Your task to perform on an android device: Go to Android settings Image 0: 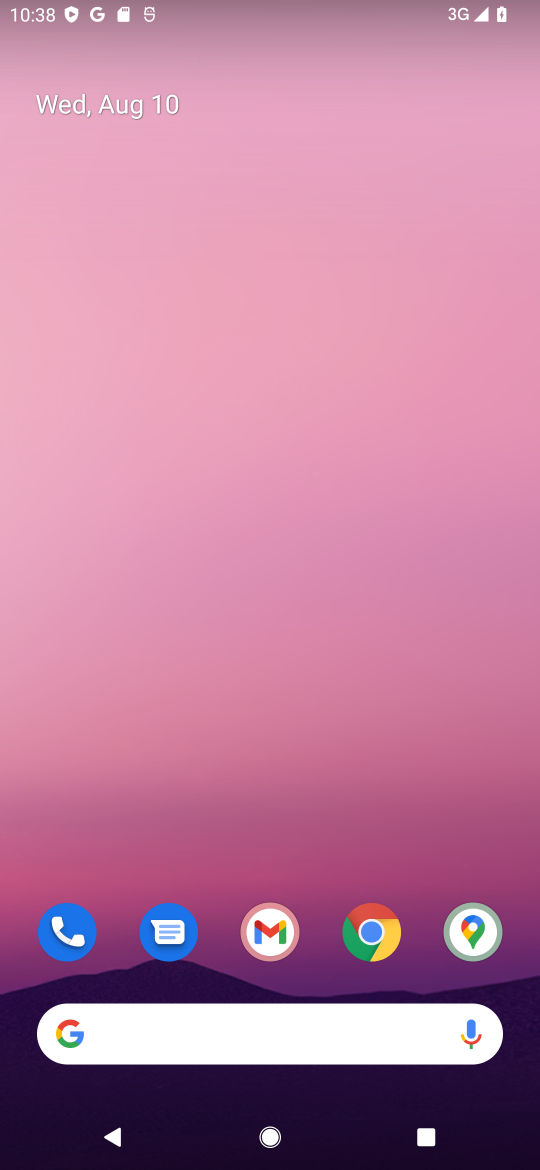
Step 0: press home button
Your task to perform on an android device: Go to Android settings Image 1: 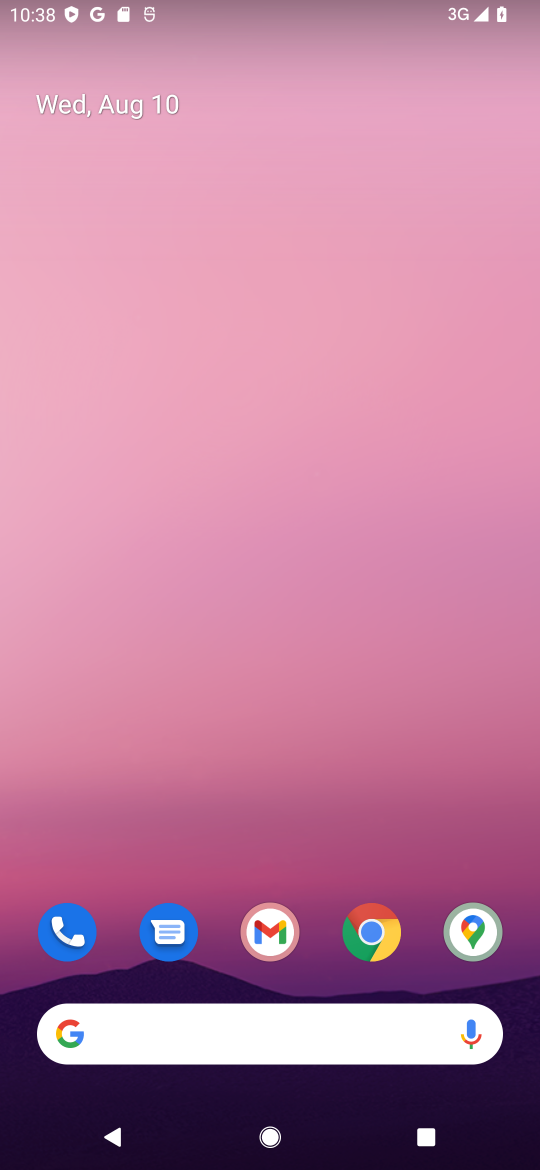
Step 1: drag from (345, 436) to (345, 361)
Your task to perform on an android device: Go to Android settings Image 2: 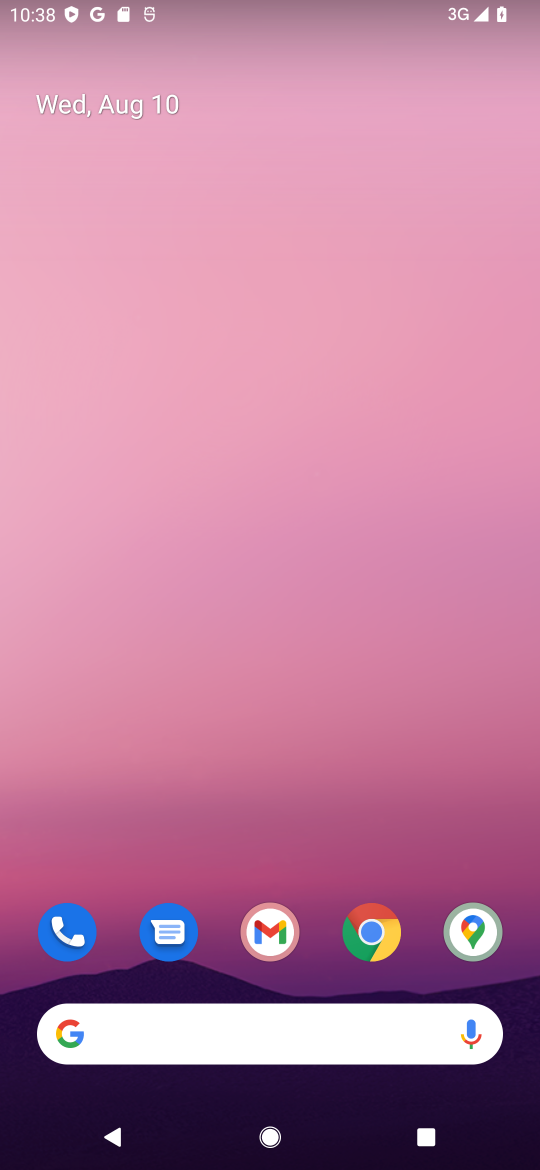
Step 2: drag from (361, 829) to (318, 10)
Your task to perform on an android device: Go to Android settings Image 3: 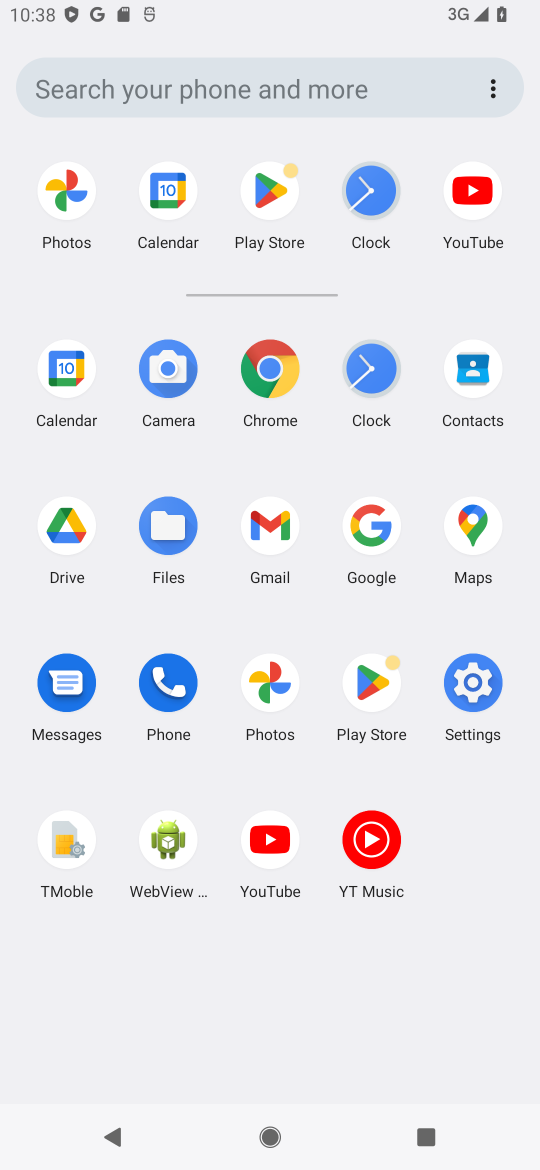
Step 3: click (468, 685)
Your task to perform on an android device: Go to Android settings Image 4: 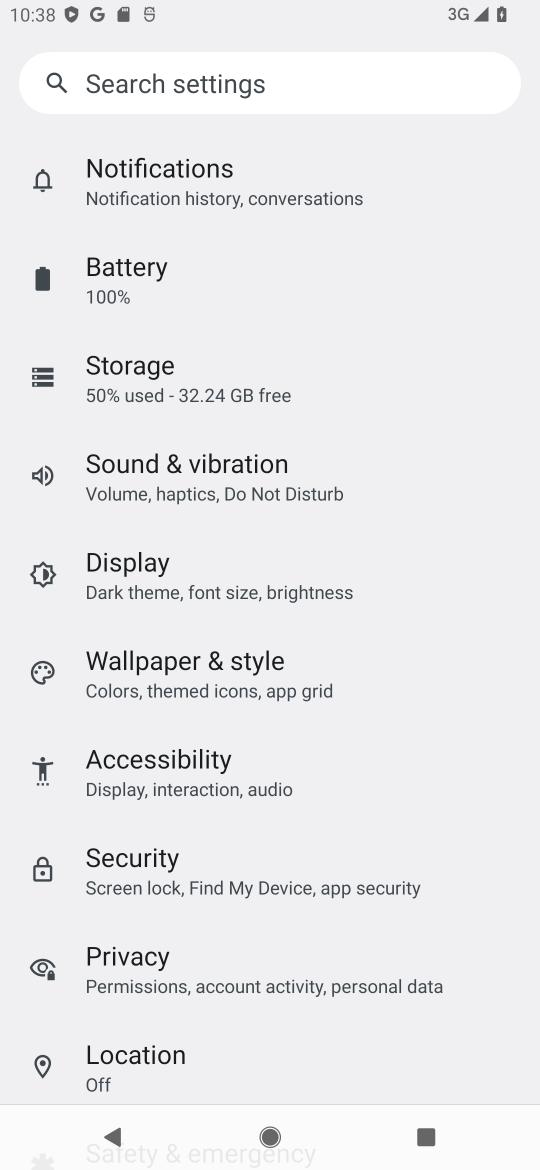
Step 4: task complete